Your task to perform on an android device: turn on priority inbox in the gmail app Image 0: 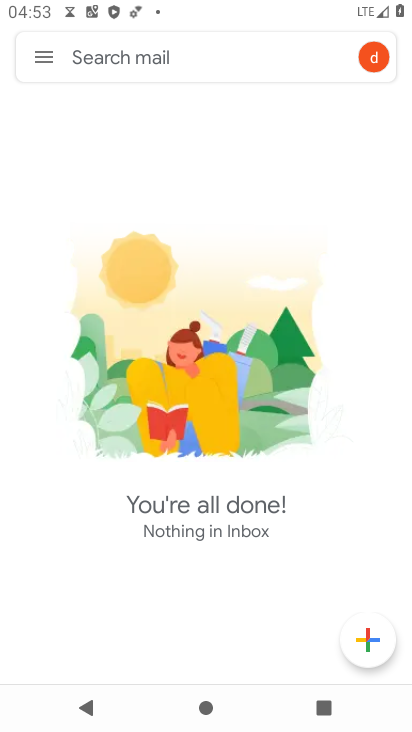
Step 0: click (44, 60)
Your task to perform on an android device: turn on priority inbox in the gmail app Image 1: 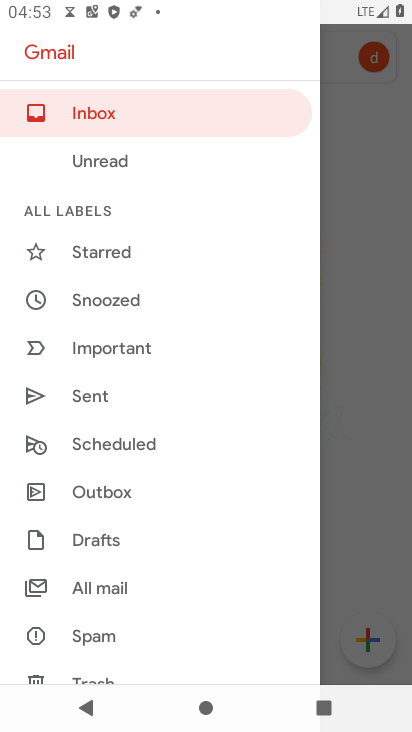
Step 1: drag from (112, 601) to (122, 420)
Your task to perform on an android device: turn on priority inbox in the gmail app Image 2: 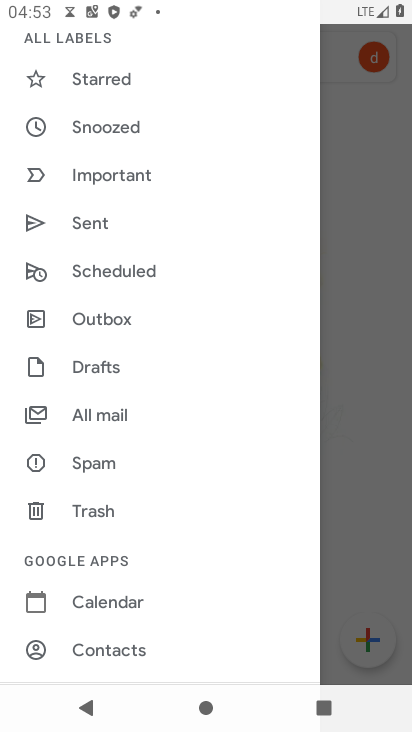
Step 2: drag from (122, 575) to (137, 463)
Your task to perform on an android device: turn on priority inbox in the gmail app Image 3: 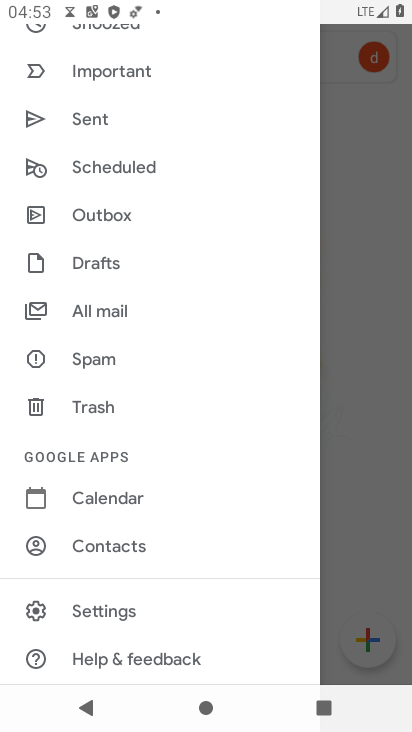
Step 3: click (109, 611)
Your task to perform on an android device: turn on priority inbox in the gmail app Image 4: 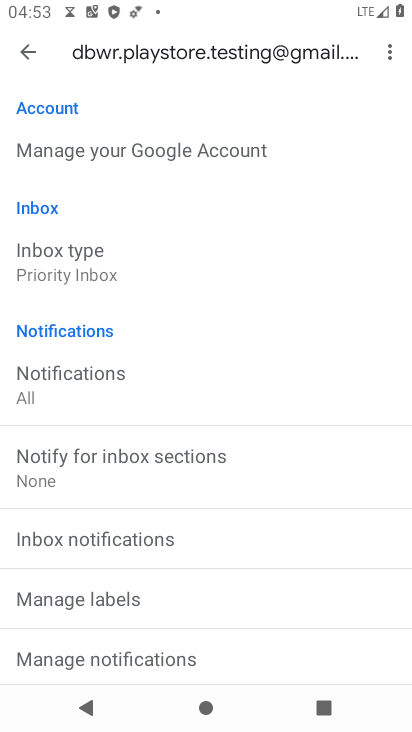
Step 4: click (72, 266)
Your task to perform on an android device: turn on priority inbox in the gmail app Image 5: 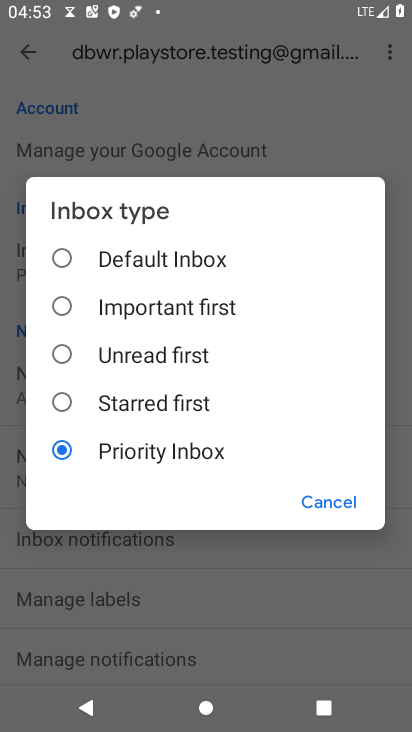
Step 5: click (65, 451)
Your task to perform on an android device: turn on priority inbox in the gmail app Image 6: 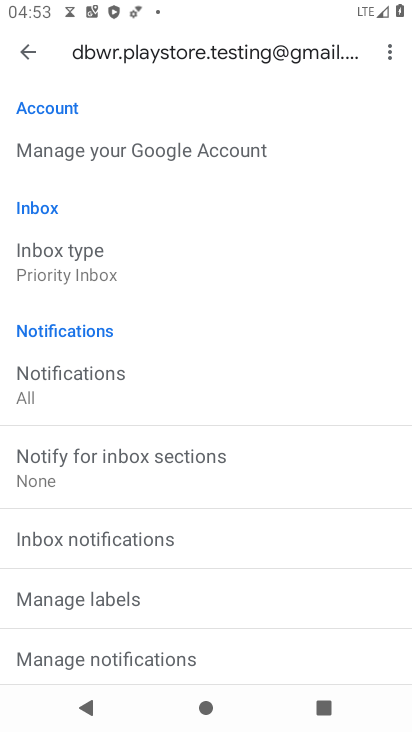
Step 6: task complete